Your task to perform on an android device: Show me productivity apps on the Play Store Image 0: 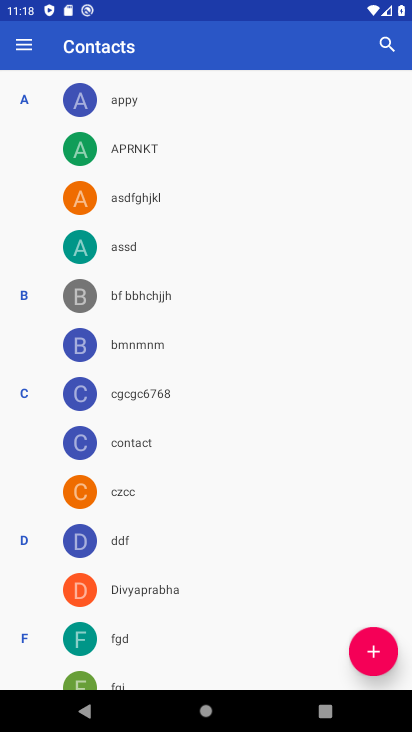
Step 0: press home button
Your task to perform on an android device: Show me productivity apps on the Play Store Image 1: 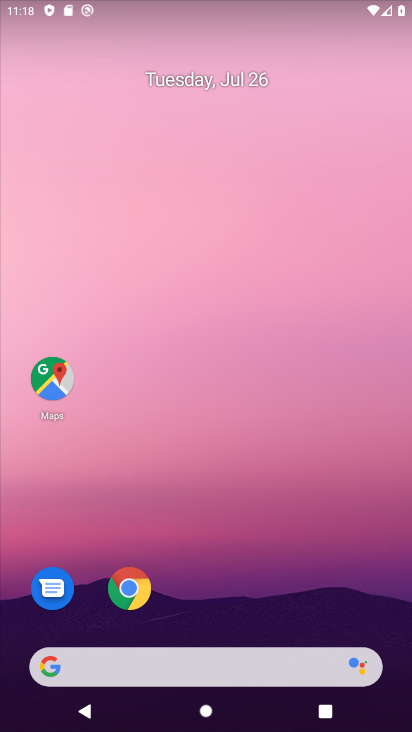
Step 1: drag from (67, 533) to (213, 93)
Your task to perform on an android device: Show me productivity apps on the Play Store Image 2: 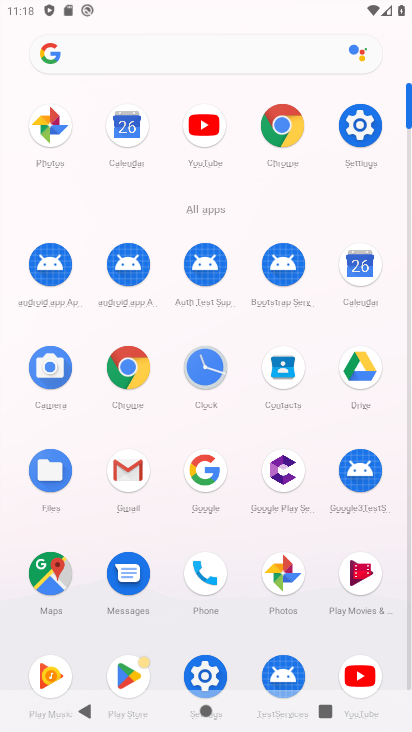
Step 2: click (123, 681)
Your task to perform on an android device: Show me productivity apps on the Play Store Image 3: 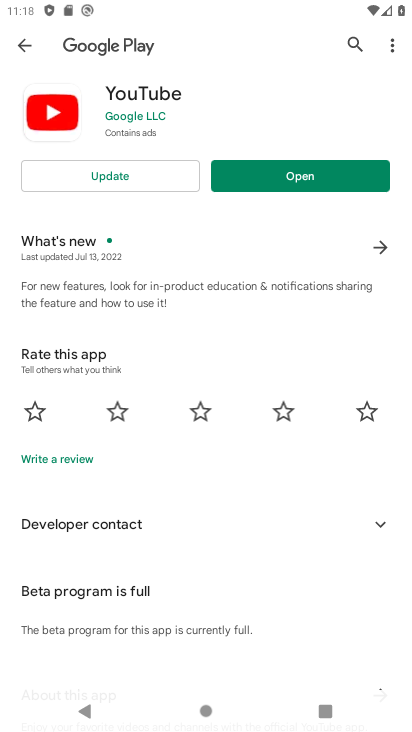
Step 3: click (25, 40)
Your task to perform on an android device: Show me productivity apps on the Play Store Image 4: 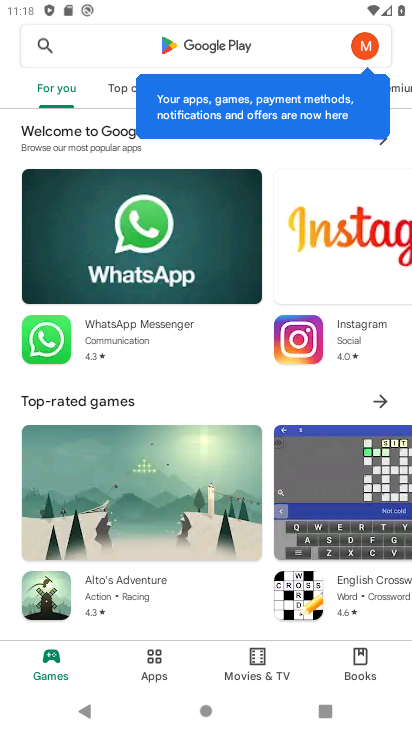
Step 4: click (107, 44)
Your task to perform on an android device: Show me productivity apps on the Play Store Image 5: 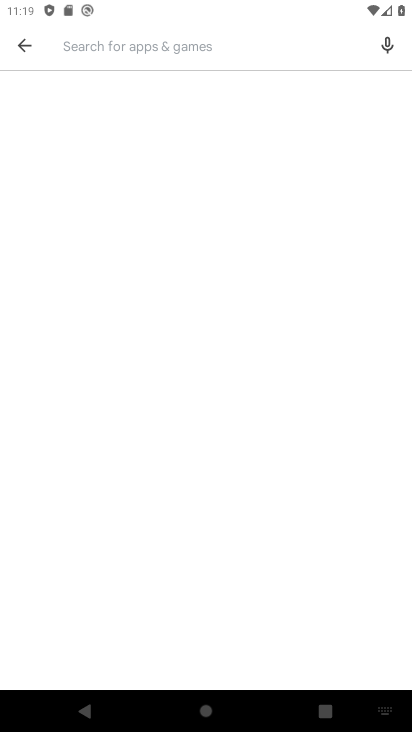
Step 5: type " productivity apps"
Your task to perform on an android device: Show me productivity apps on the Play Store Image 6: 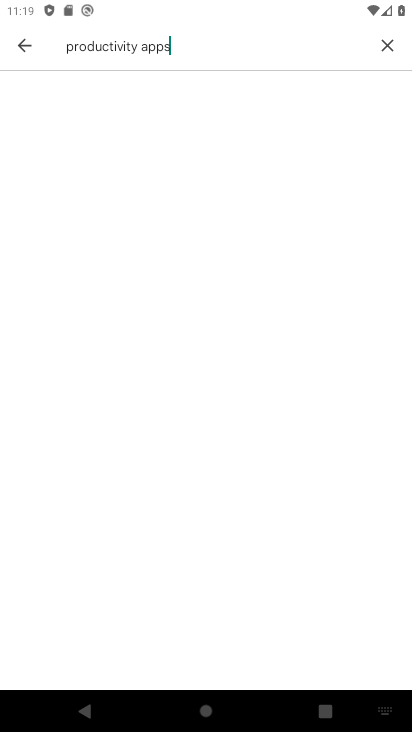
Step 6: type ""
Your task to perform on an android device: Show me productivity apps on the Play Store Image 7: 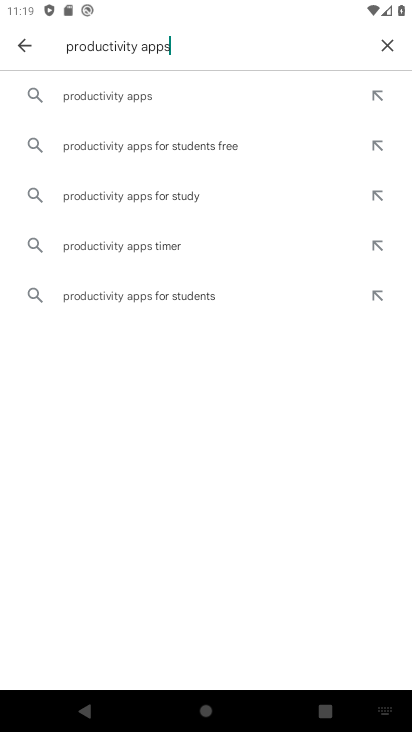
Step 7: click (109, 91)
Your task to perform on an android device: Show me productivity apps on the Play Store Image 8: 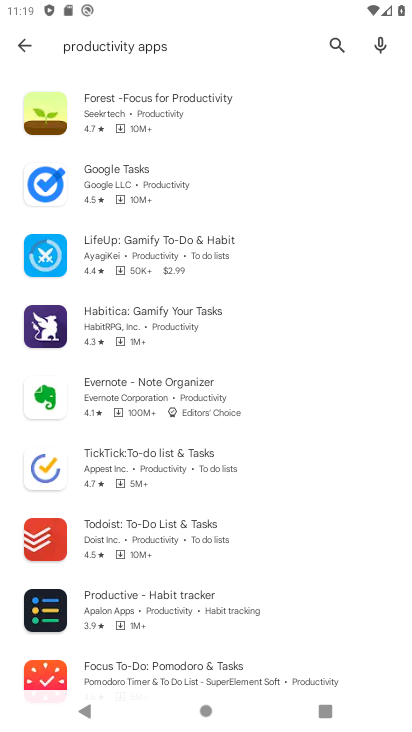
Step 8: task complete